Your task to perform on an android device: check battery use Image 0: 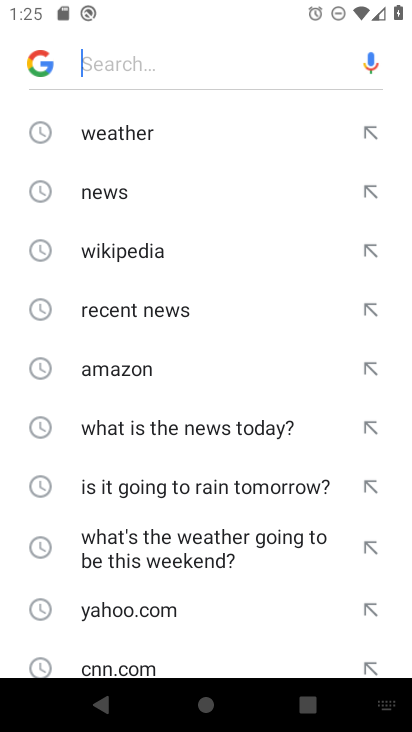
Step 0: press home button
Your task to perform on an android device: check battery use Image 1: 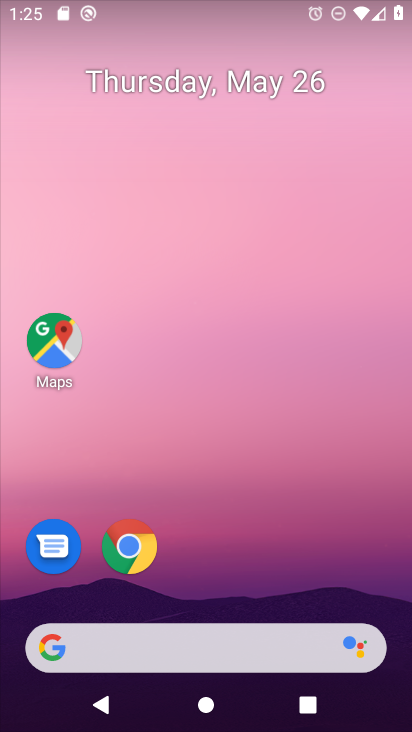
Step 1: drag from (120, 621) to (367, 37)
Your task to perform on an android device: check battery use Image 2: 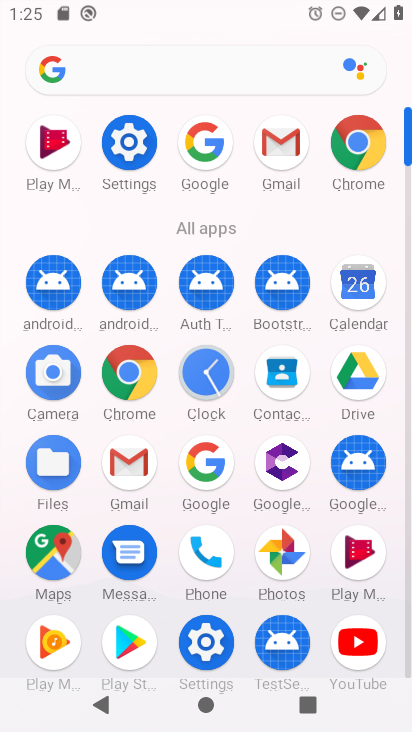
Step 2: click (134, 135)
Your task to perform on an android device: check battery use Image 3: 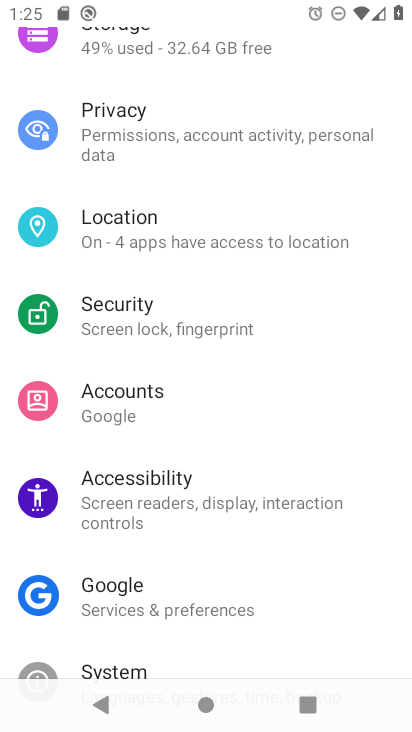
Step 3: drag from (157, 169) to (176, 586)
Your task to perform on an android device: check battery use Image 4: 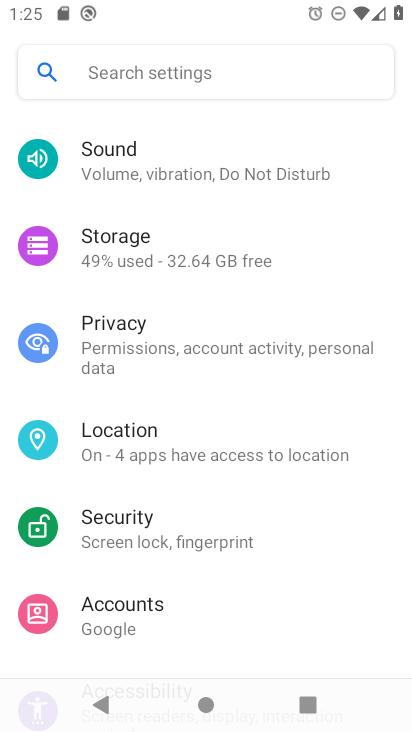
Step 4: drag from (158, 143) to (177, 564)
Your task to perform on an android device: check battery use Image 5: 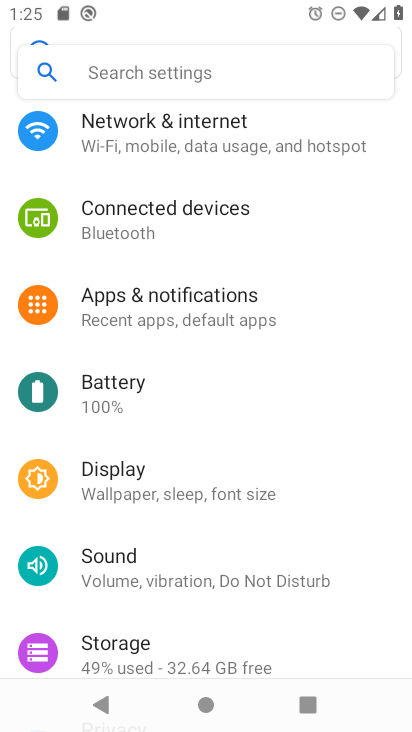
Step 5: click (129, 399)
Your task to perform on an android device: check battery use Image 6: 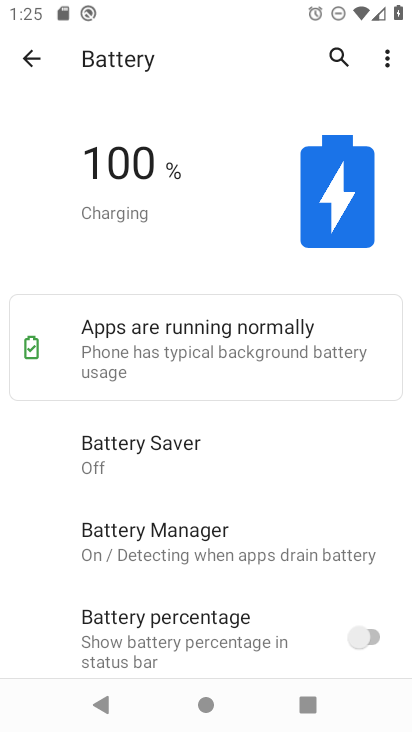
Step 6: task complete